Your task to perform on an android device: Do I have any events this weekend? Image 0: 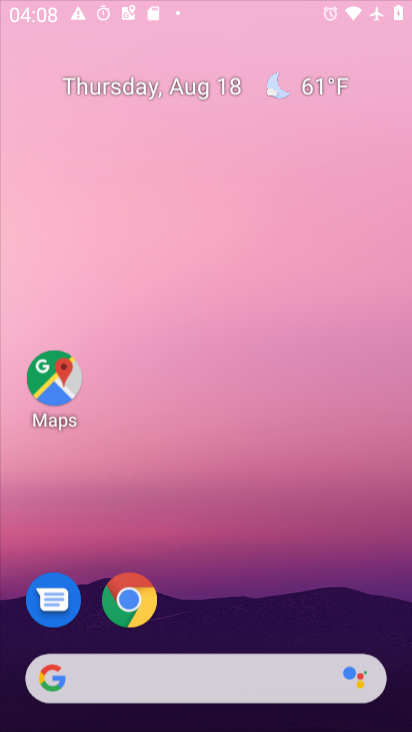
Step 0: press home button
Your task to perform on an android device: Do I have any events this weekend? Image 1: 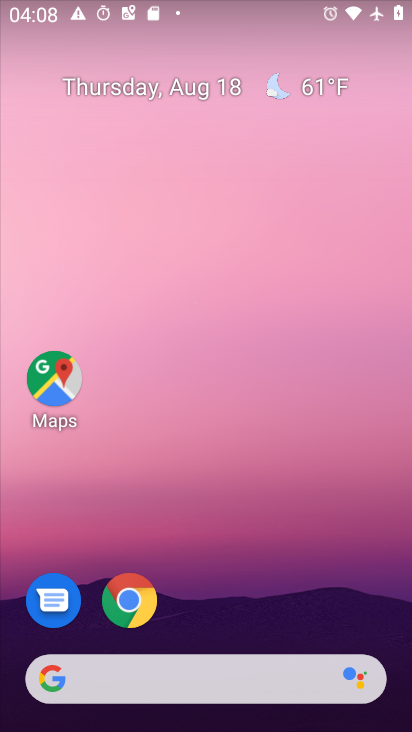
Step 1: drag from (211, 623) to (183, 102)
Your task to perform on an android device: Do I have any events this weekend? Image 2: 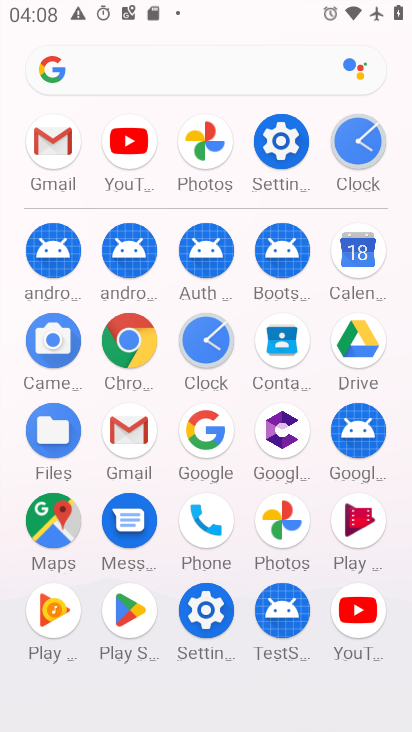
Step 2: click (353, 252)
Your task to perform on an android device: Do I have any events this weekend? Image 3: 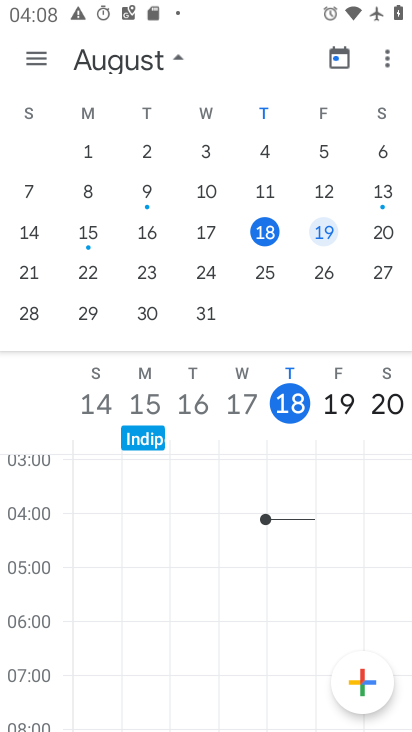
Step 3: click (44, 66)
Your task to perform on an android device: Do I have any events this weekend? Image 4: 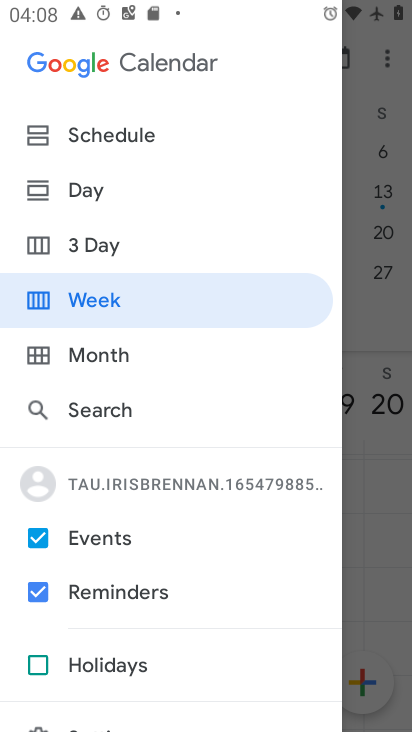
Step 4: click (94, 306)
Your task to perform on an android device: Do I have any events this weekend? Image 5: 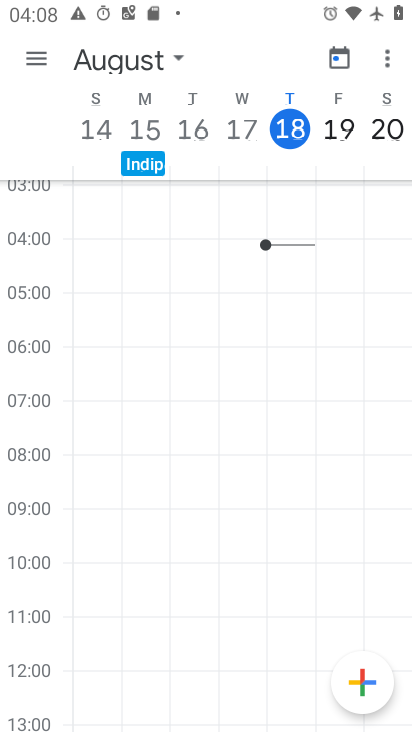
Step 5: task complete